Your task to perform on an android device: Open Reddit.com Image 0: 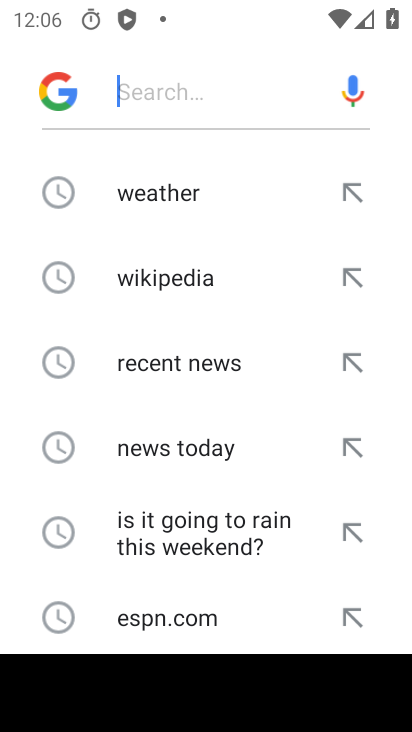
Step 0: click (172, 102)
Your task to perform on an android device: Open Reddit.com Image 1: 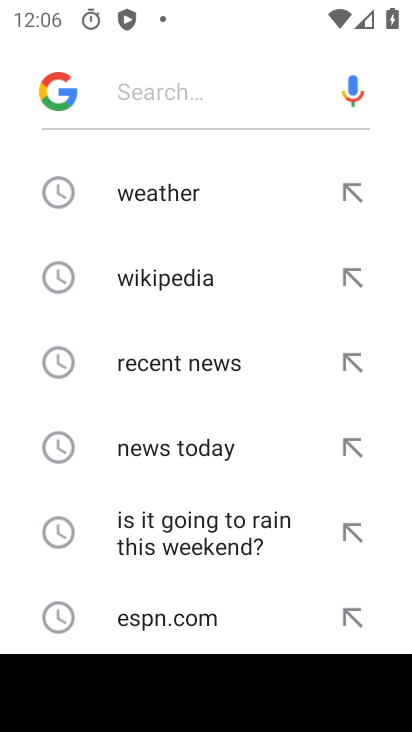
Step 1: type "reddit.com"
Your task to perform on an android device: Open Reddit.com Image 2: 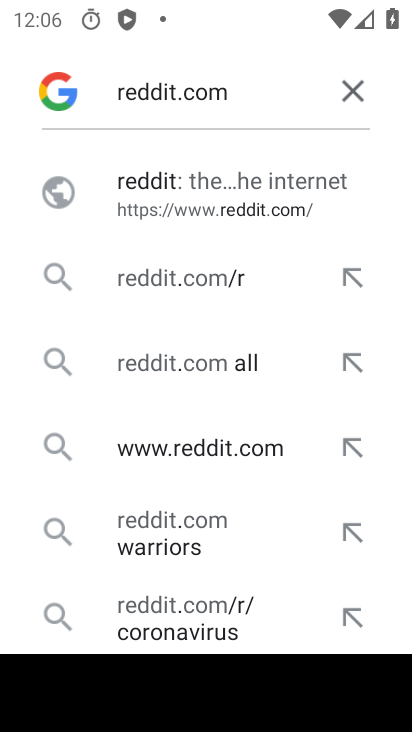
Step 2: click (176, 458)
Your task to perform on an android device: Open Reddit.com Image 3: 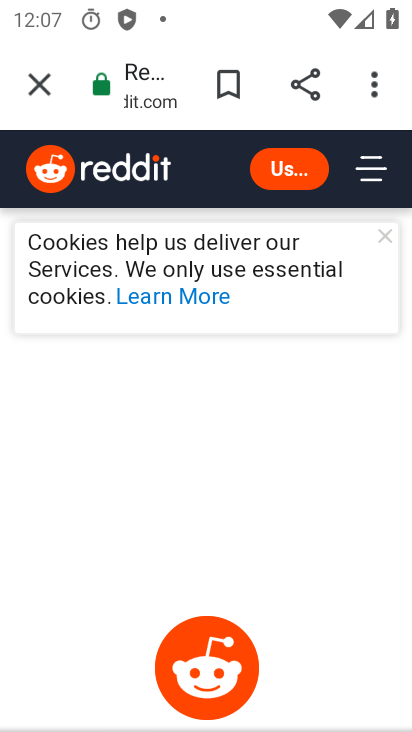
Step 3: task complete